Your task to perform on an android device: turn off notifications settings in the gmail app Image 0: 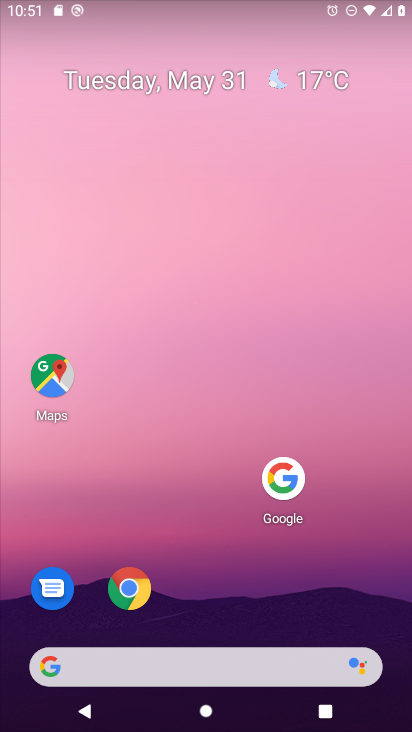
Step 0: drag from (211, 633) to (298, 144)
Your task to perform on an android device: turn off notifications settings in the gmail app Image 1: 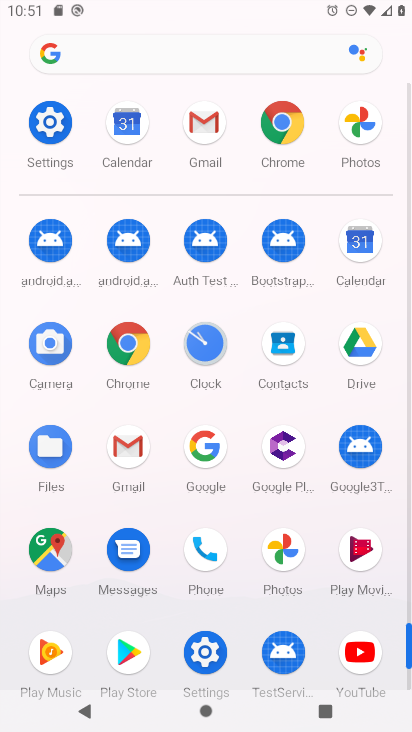
Step 1: click (206, 131)
Your task to perform on an android device: turn off notifications settings in the gmail app Image 2: 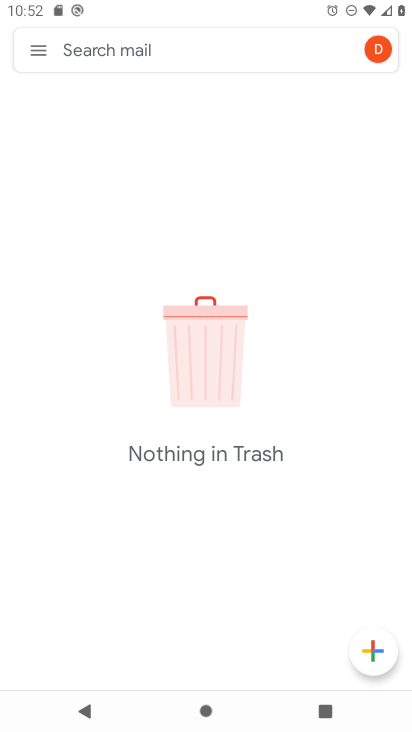
Step 2: click (34, 54)
Your task to perform on an android device: turn off notifications settings in the gmail app Image 3: 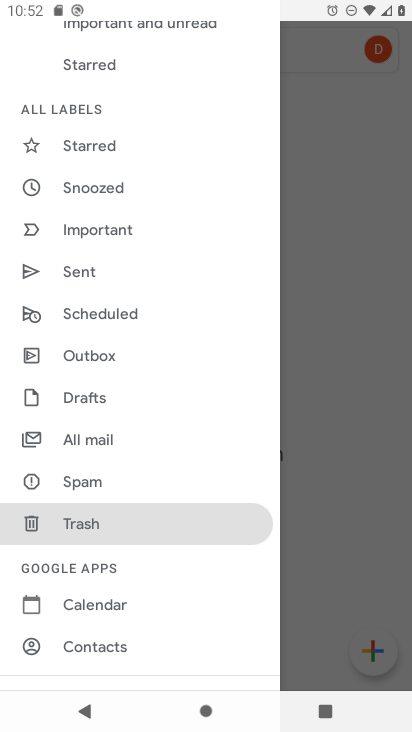
Step 3: drag from (139, 642) to (166, 152)
Your task to perform on an android device: turn off notifications settings in the gmail app Image 4: 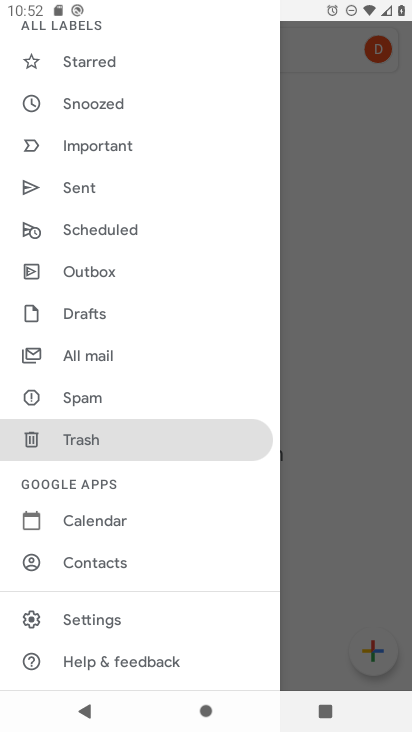
Step 4: click (86, 623)
Your task to perform on an android device: turn off notifications settings in the gmail app Image 5: 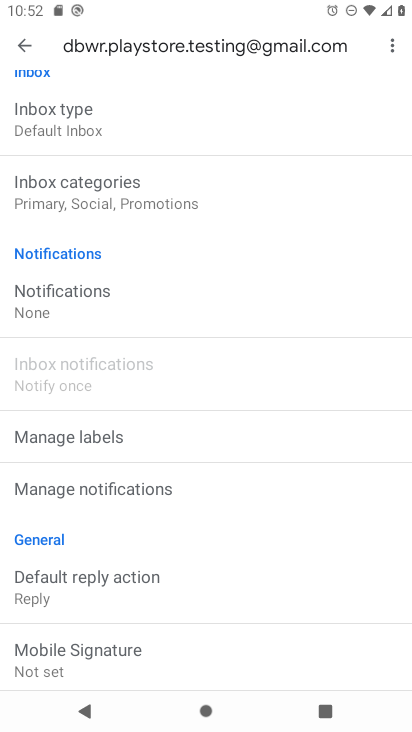
Step 5: click (104, 287)
Your task to perform on an android device: turn off notifications settings in the gmail app Image 6: 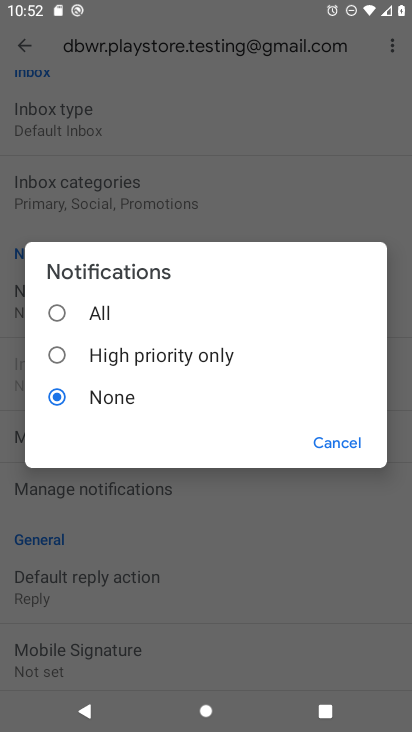
Step 6: task complete